Your task to perform on an android device: visit the assistant section in the google photos Image 0: 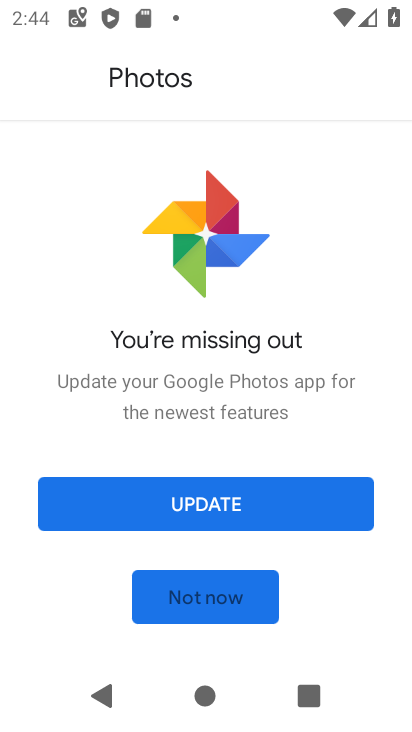
Step 0: press home button
Your task to perform on an android device: visit the assistant section in the google photos Image 1: 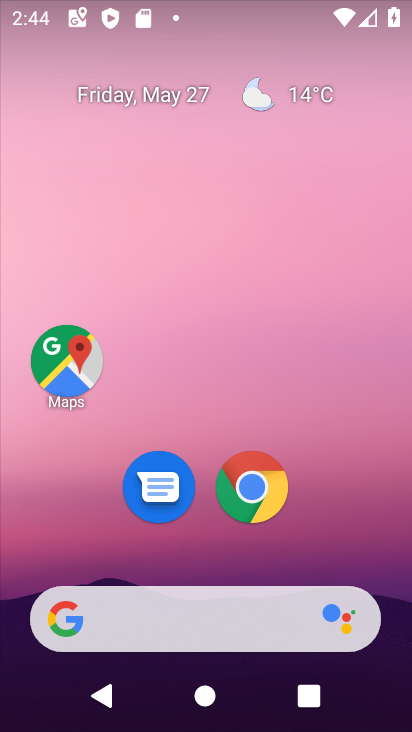
Step 1: drag from (227, 424) to (234, 5)
Your task to perform on an android device: visit the assistant section in the google photos Image 2: 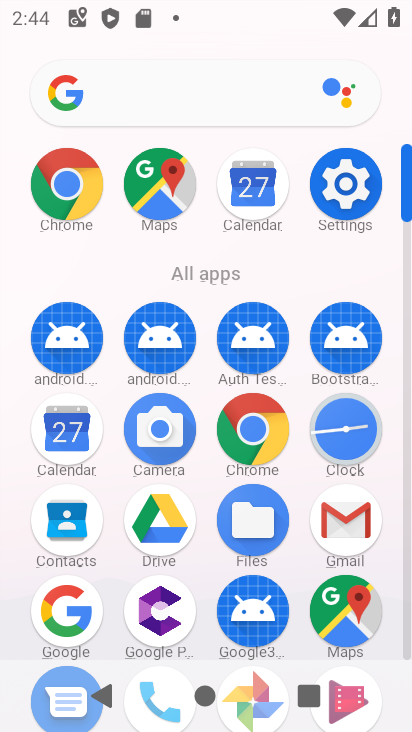
Step 2: click (404, 643)
Your task to perform on an android device: visit the assistant section in the google photos Image 3: 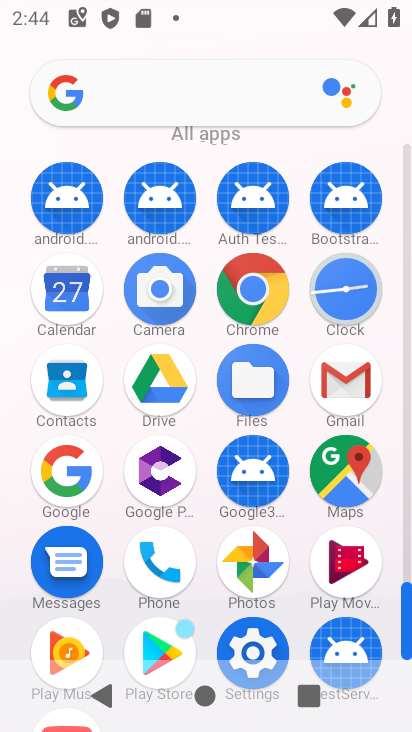
Step 3: click (404, 643)
Your task to perform on an android device: visit the assistant section in the google photos Image 4: 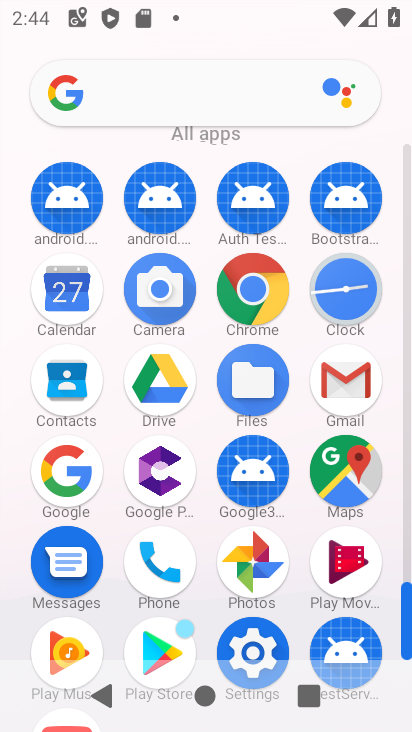
Step 4: click (404, 643)
Your task to perform on an android device: visit the assistant section in the google photos Image 5: 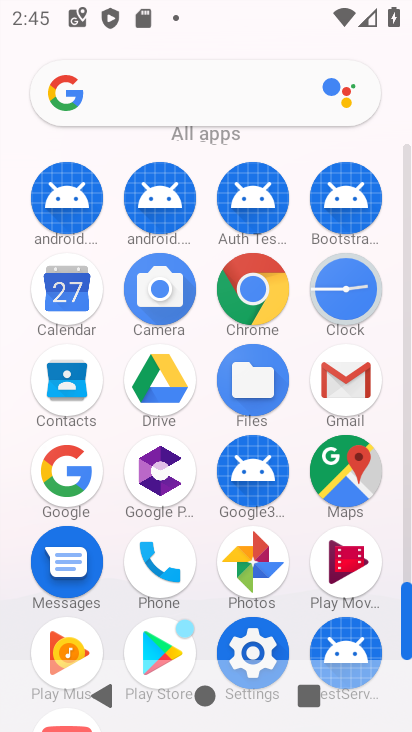
Step 5: click (337, 362)
Your task to perform on an android device: visit the assistant section in the google photos Image 6: 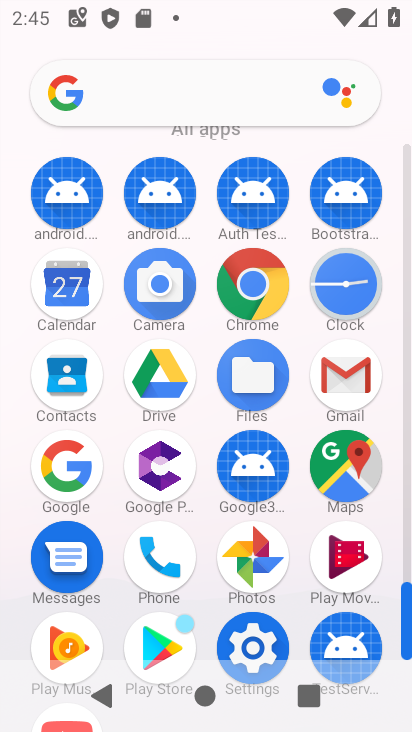
Step 6: drag from (406, 613) to (411, 532)
Your task to perform on an android device: visit the assistant section in the google photos Image 7: 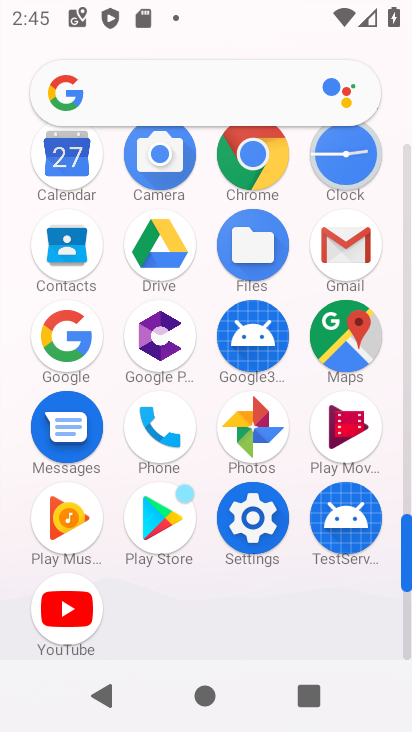
Step 7: drag from (411, 557) to (188, 341)
Your task to perform on an android device: visit the assistant section in the google photos Image 8: 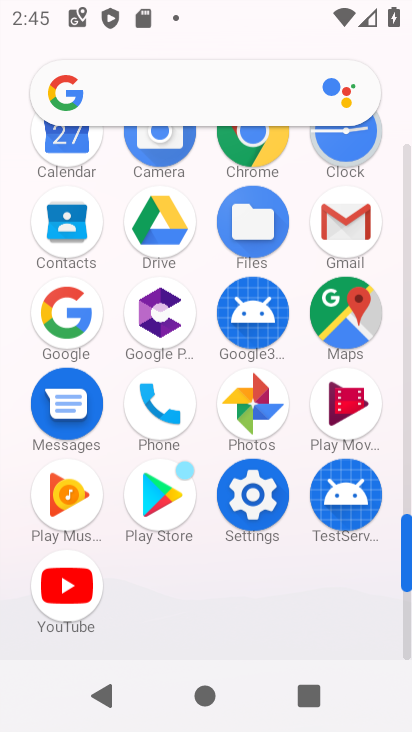
Step 8: drag from (331, 524) to (313, 205)
Your task to perform on an android device: visit the assistant section in the google photos Image 9: 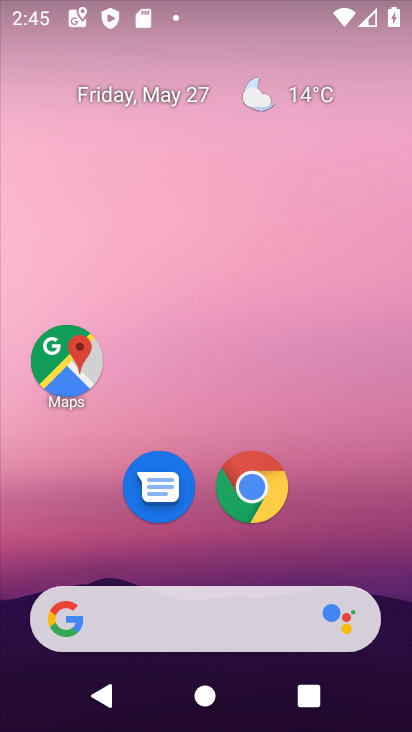
Step 9: click (255, 456)
Your task to perform on an android device: visit the assistant section in the google photos Image 10: 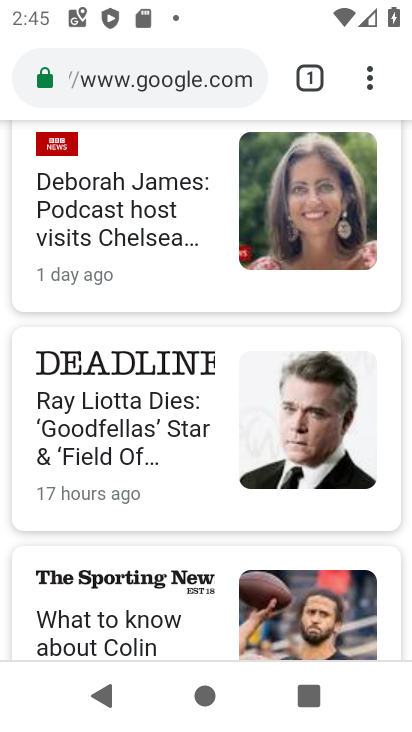
Step 10: press home button
Your task to perform on an android device: visit the assistant section in the google photos Image 11: 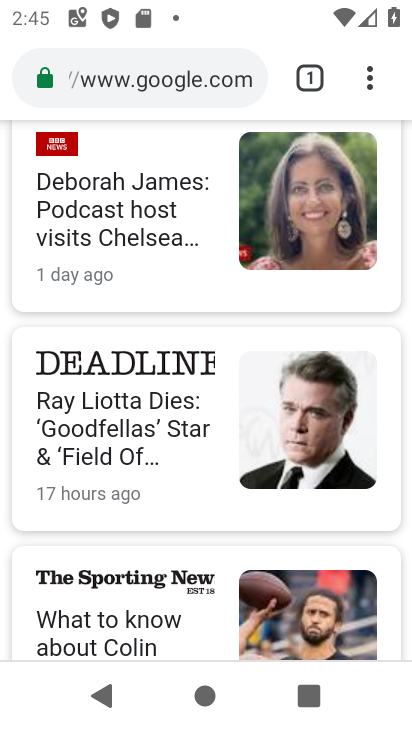
Step 11: press home button
Your task to perform on an android device: visit the assistant section in the google photos Image 12: 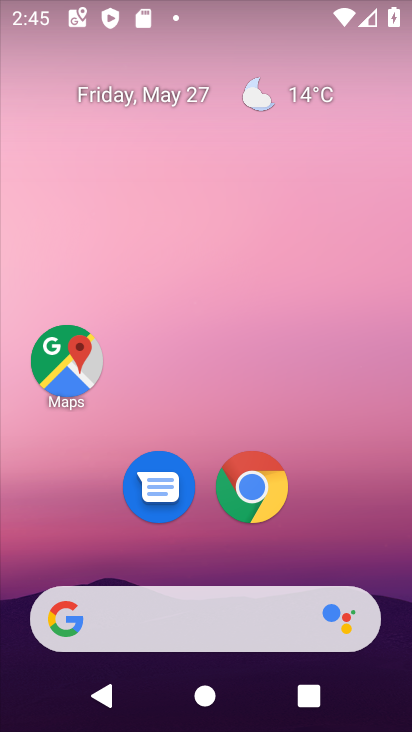
Step 12: drag from (358, 478) to (296, 48)
Your task to perform on an android device: visit the assistant section in the google photos Image 13: 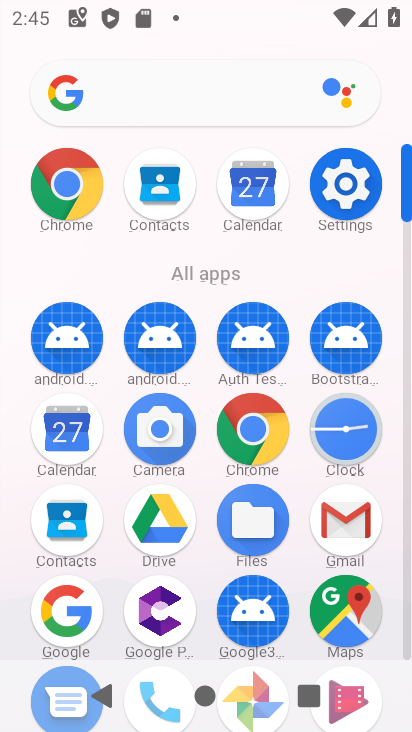
Step 13: click (407, 650)
Your task to perform on an android device: visit the assistant section in the google photos Image 14: 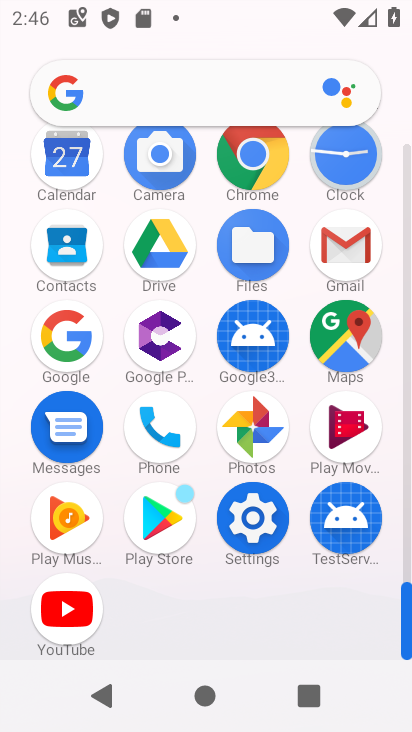
Step 14: click (262, 459)
Your task to perform on an android device: visit the assistant section in the google photos Image 15: 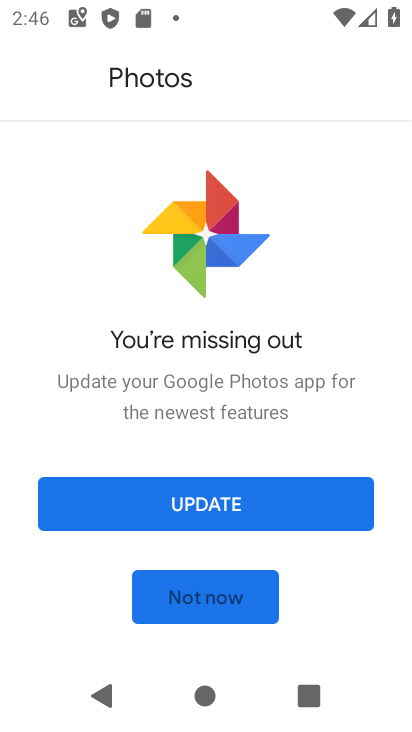
Step 15: click (155, 522)
Your task to perform on an android device: visit the assistant section in the google photos Image 16: 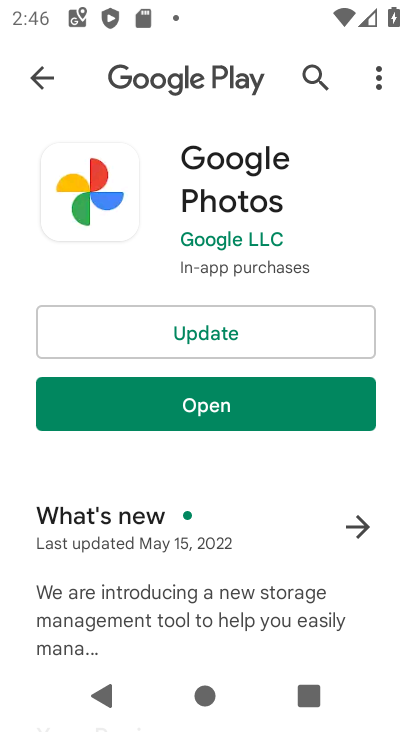
Step 16: click (240, 340)
Your task to perform on an android device: visit the assistant section in the google photos Image 17: 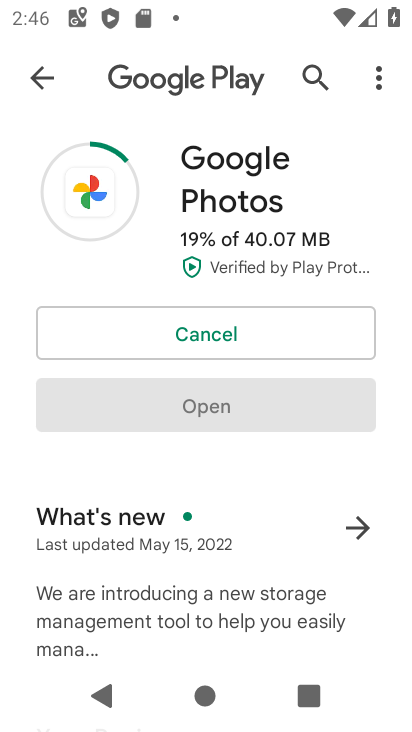
Step 17: click (212, 326)
Your task to perform on an android device: visit the assistant section in the google photos Image 18: 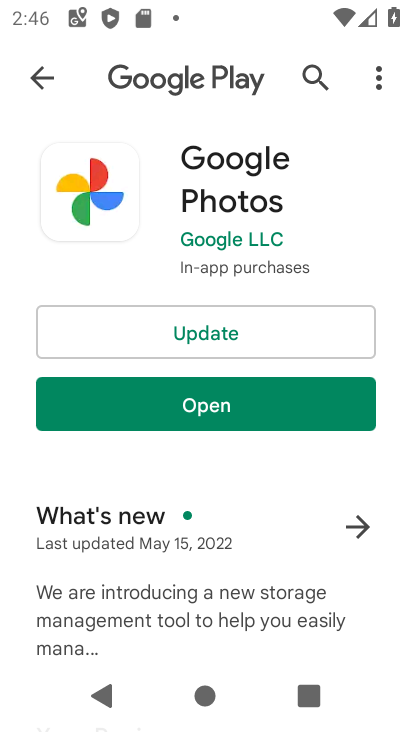
Step 18: click (227, 436)
Your task to perform on an android device: visit the assistant section in the google photos Image 19: 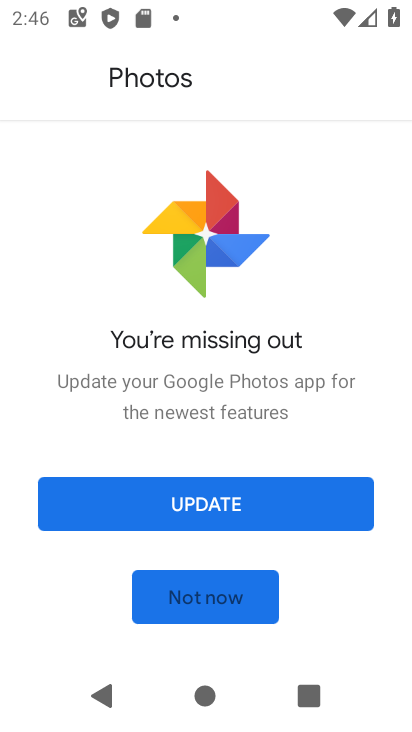
Step 19: click (339, 330)
Your task to perform on an android device: visit the assistant section in the google photos Image 20: 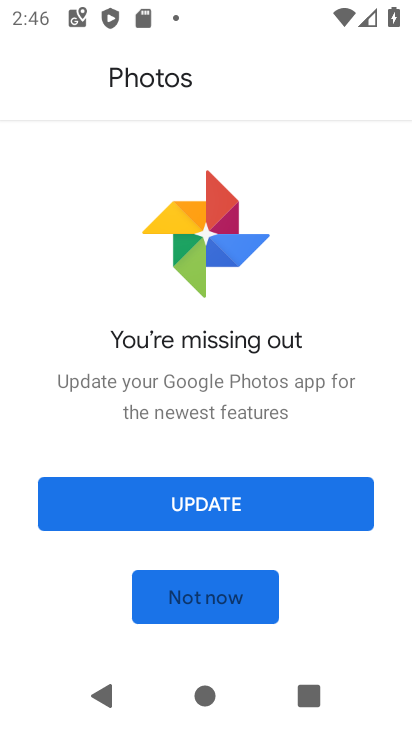
Step 20: click (307, 516)
Your task to perform on an android device: visit the assistant section in the google photos Image 21: 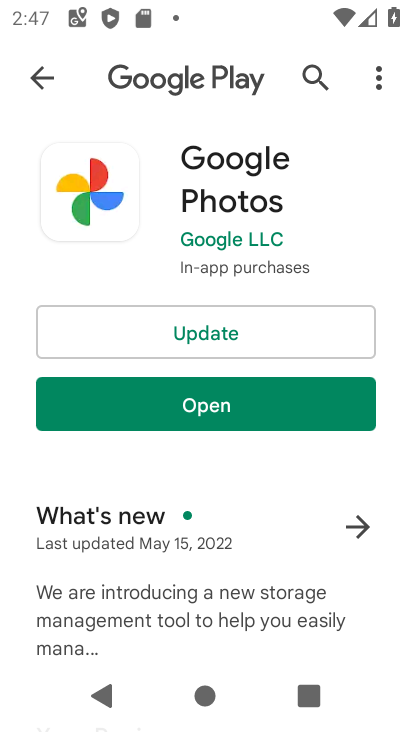
Step 21: click (270, 344)
Your task to perform on an android device: visit the assistant section in the google photos Image 22: 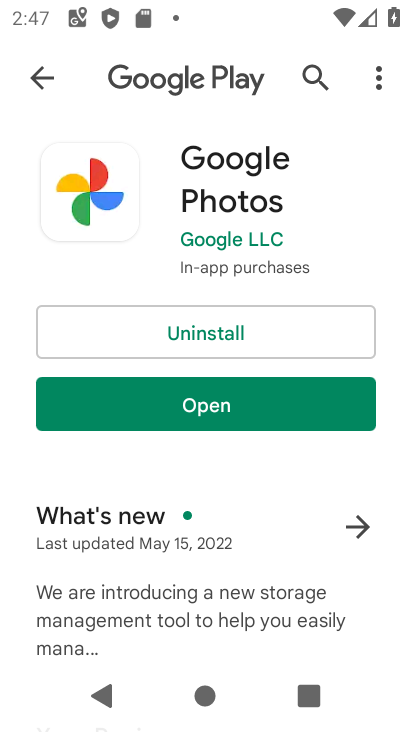
Step 22: click (374, 338)
Your task to perform on an android device: visit the assistant section in the google photos Image 23: 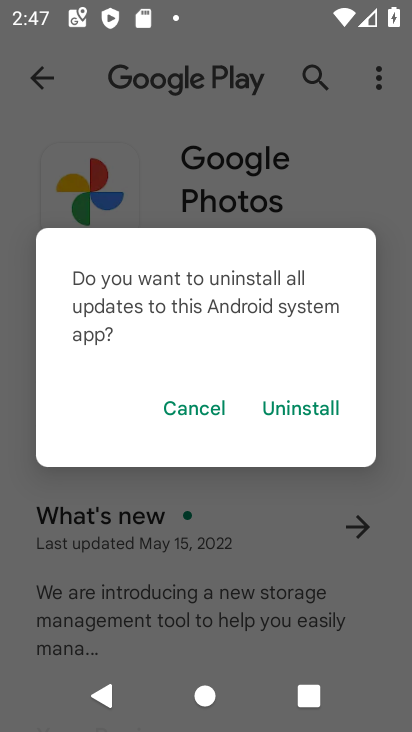
Step 23: click (220, 409)
Your task to perform on an android device: visit the assistant section in the google photos Image 24: 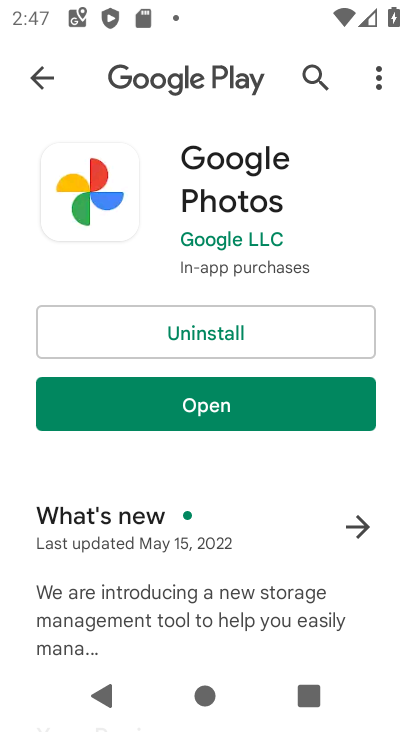
Step 24: click (202, 410)
Your task to perform on an android device: visit the assistant section in the google photos Image 25: 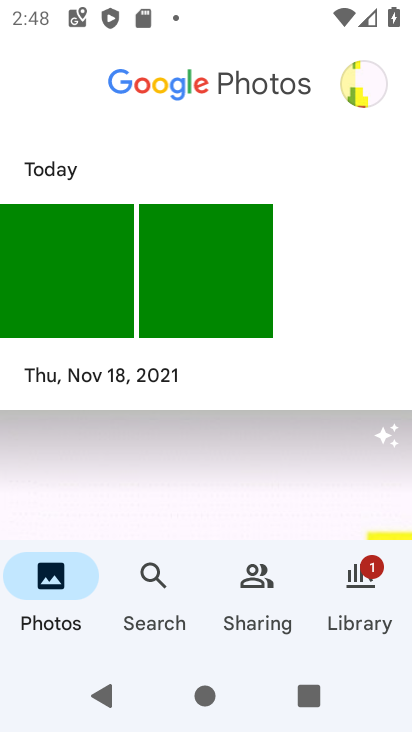
Step 25: task complete